Your task to perform on an android device: toggle translation in the chrome app Image 0: 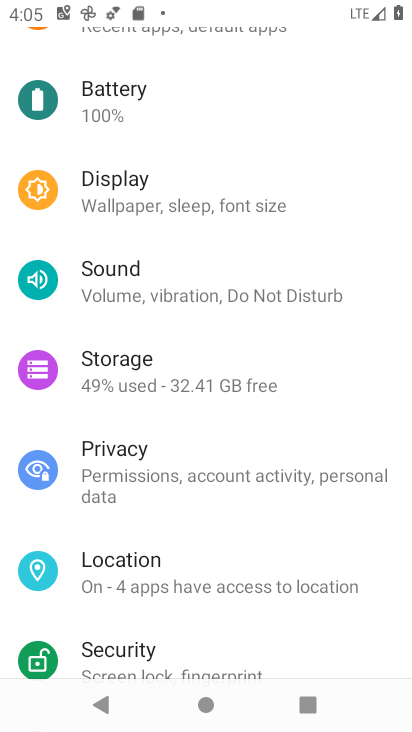
Step 0: press home button
Your task to perform on an android device: toggle translation in the chrome app Image 1: 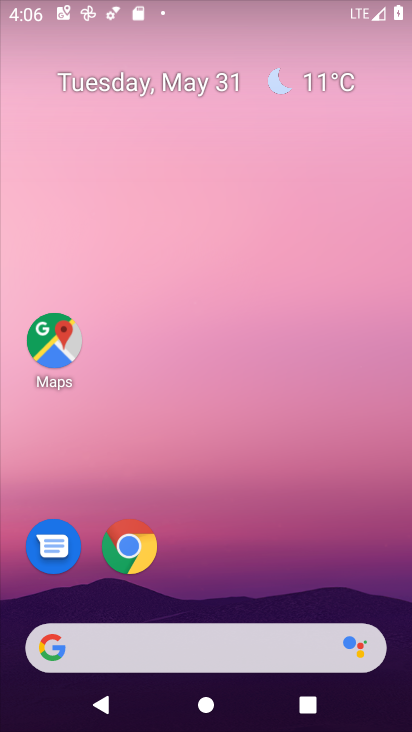
Step 1: click (130, 556)
Your task to perform on an android device: toggle translation in the chrome app Image 2: 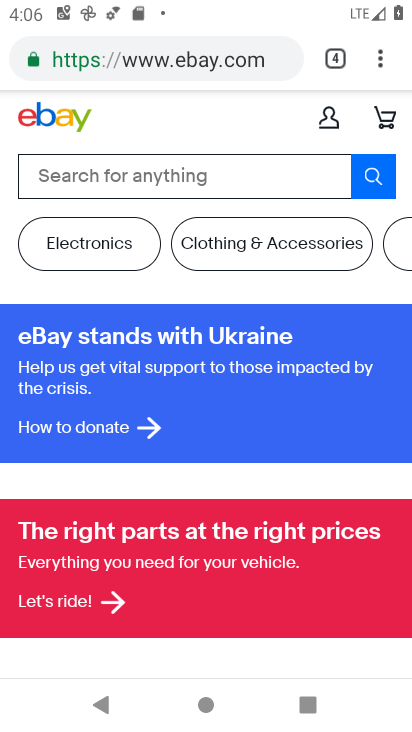
Step 2: click (386, 60)
Your task to perform on an android device: toggle translation in the chrome app Image 3: 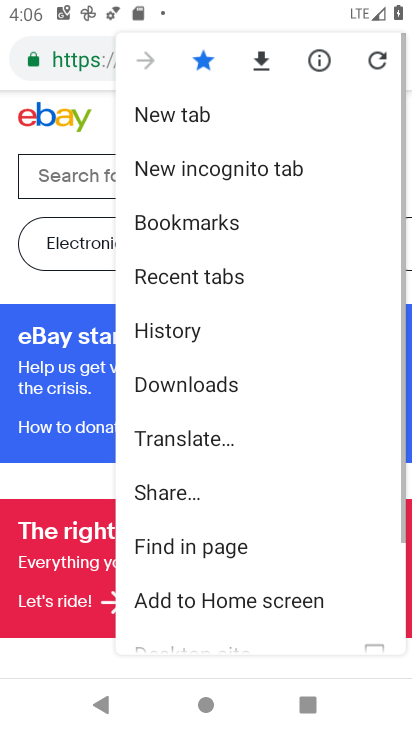
Step 3: drag from (214, 562) to (207, 93)
Your task to perform on an android device: toggle translation in the chrome app Image 4: 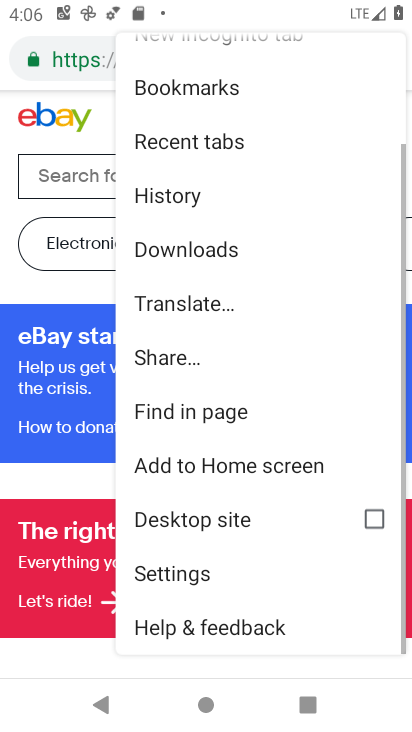
Step 4: click (202, 569)
Your task to perform on an android device: toggle translation in the chrome app Image 5: 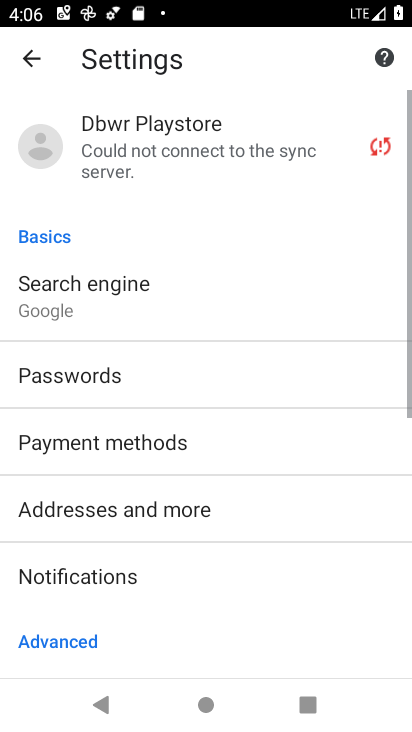
Step 5: drag from (100, 588) to (70, 118)
Your task to perform on an android device: toggle translation in the chrome app Image 6: 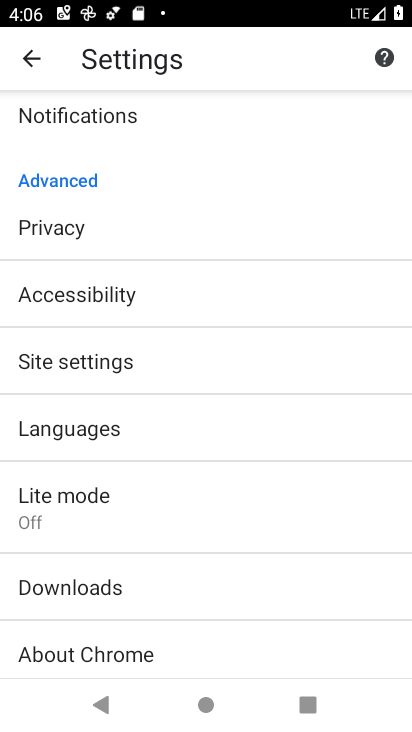
Step 6: click (87, 414)
Your task to perform on an android device: toggle translation in the chrome app Image 7: 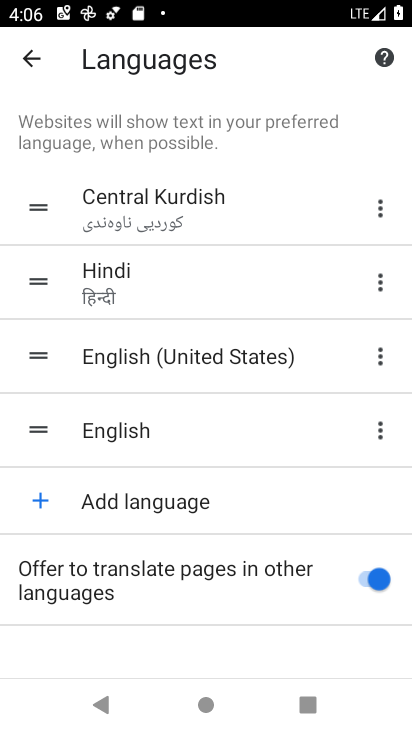
Step 7: click (380, 580)
Your task to perform on an android device: toggle translation in the chrome app Image 8: 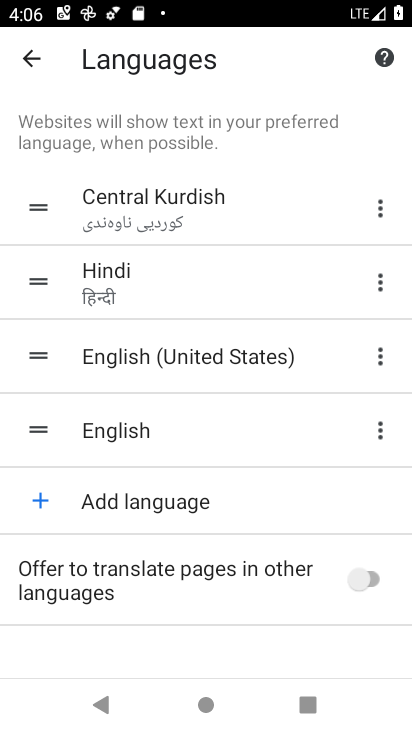
Step 8: task complete